Your task to perform on an android device: add a contact Image 0: 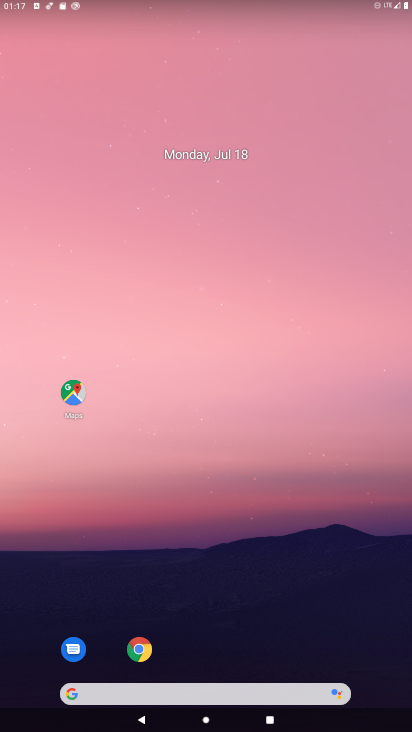
Step 0: drag from (385, 677) to (336, 108)
Your task to perform on an android device: add a contact Image 1: 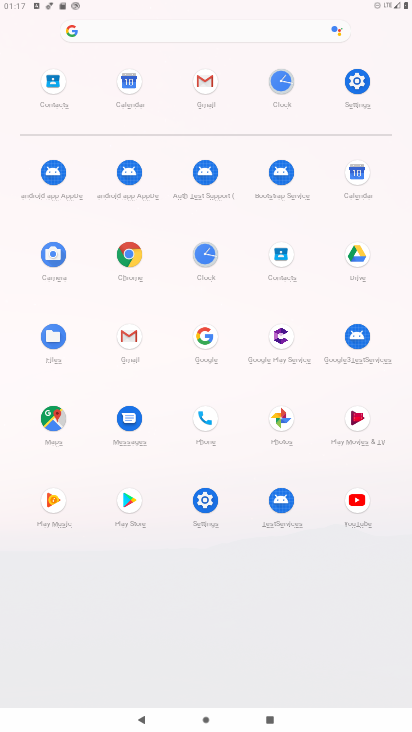
Step 1: click (277, 249)
Your task to perform on an android device: add a contact Image 2: 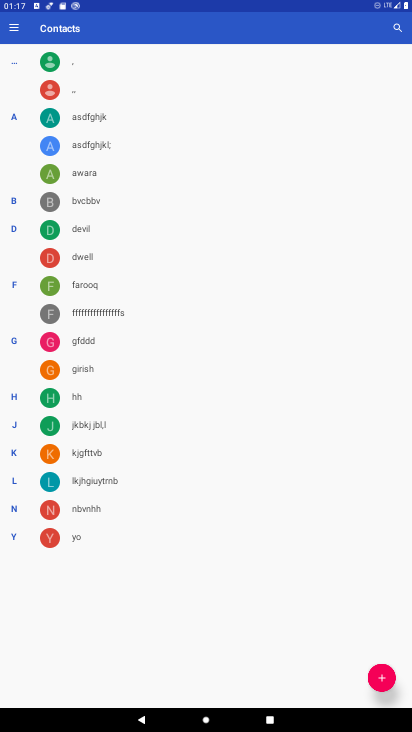
Step 2: click (381, 680)
Your task to perform on an android device: add a contact Image 3: 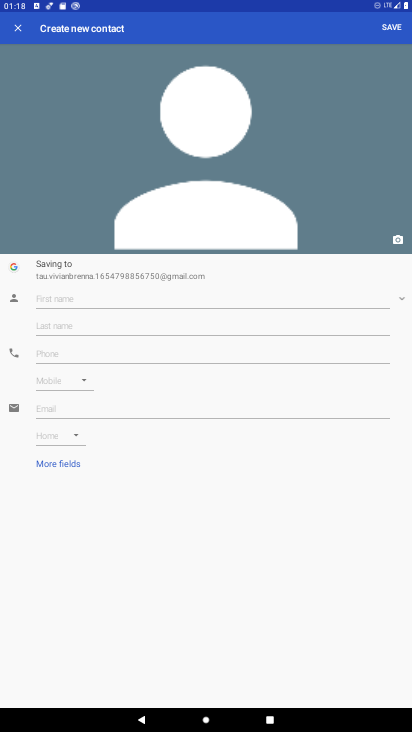
Step 3: click (47, 298)
Your task to perform on an android device: add a contact Image 4: 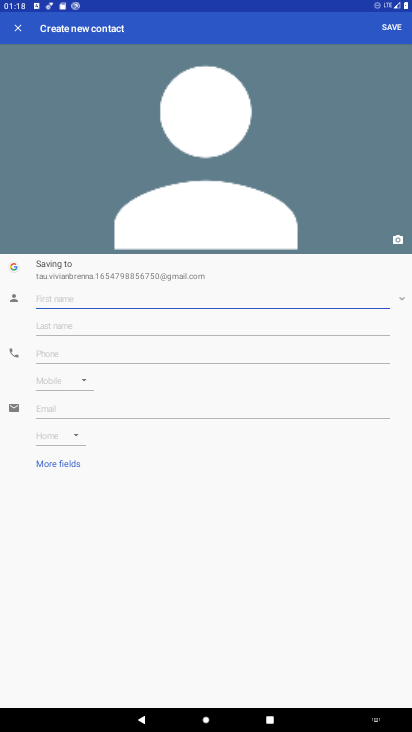
Step 4: type "iuytrfbnb"
Your task to perform on an android device: add a contact Image 5: 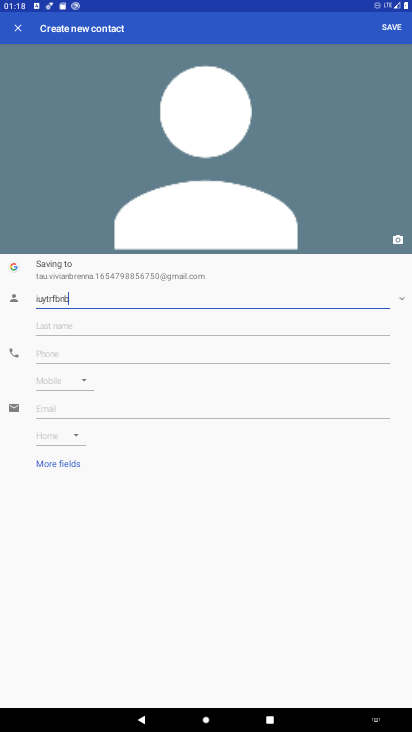
Step 5: click (73, 349)
Your task to perform on an android device: add a contact Image 6: 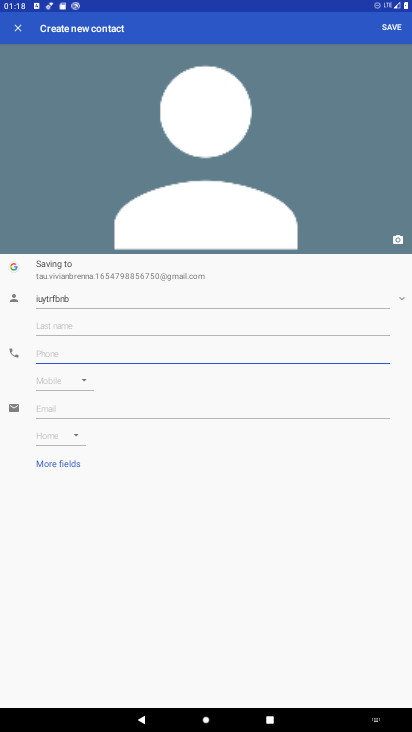
Step 6: type "0987654345"
Your task to perform on an android device: add a contact Image 7: 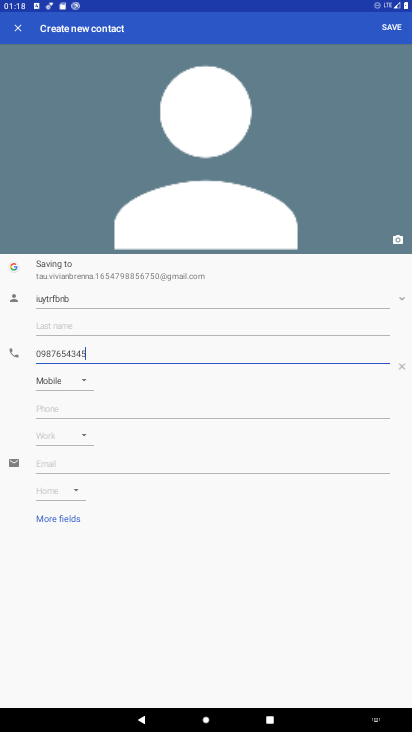
Step 7: click (389, 26)
Your task to perform on an android device: add a contact Image 8: 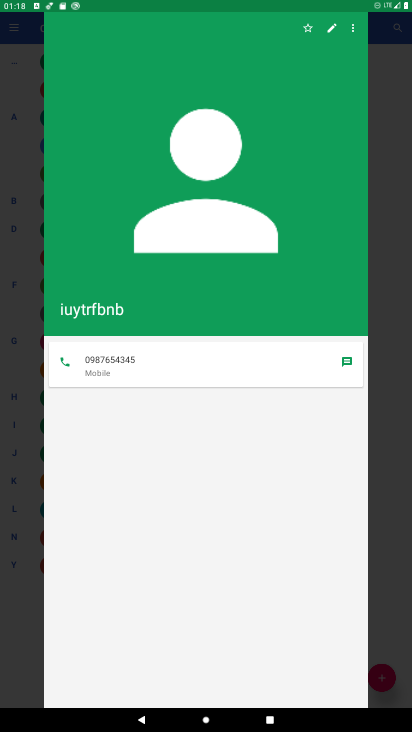
Step 8: task complete